Your task to perform on an android device: turn off javascript in the chrome app Image 0: 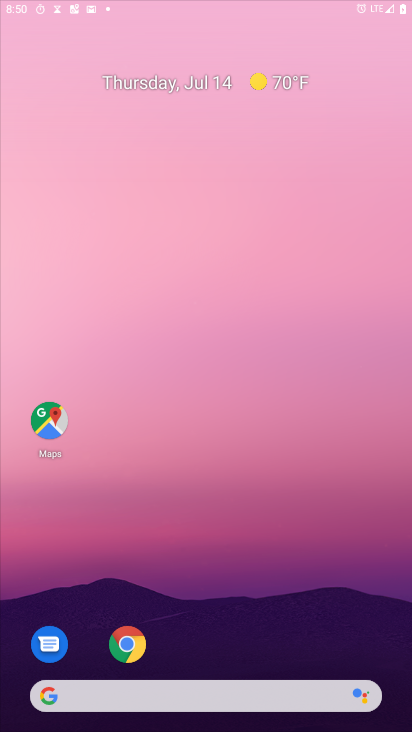
Step 0: press home button
Your task to perform on an android device: turn off javascript in the chrome app Image 1: 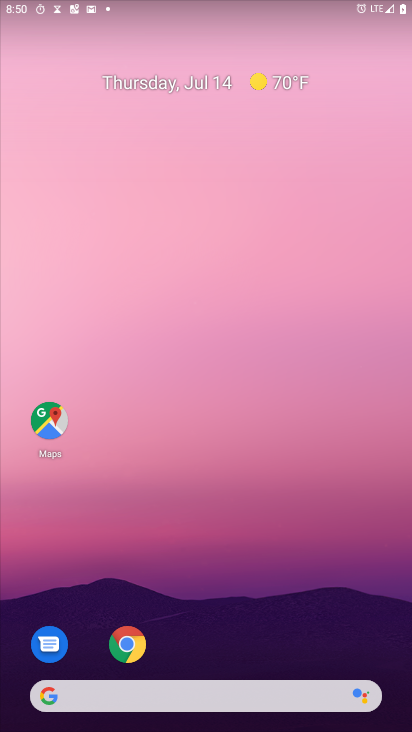
Step 1: click (129, 643)
Your task to perform on an android device: turn off javascript in the chrome app Image 2: 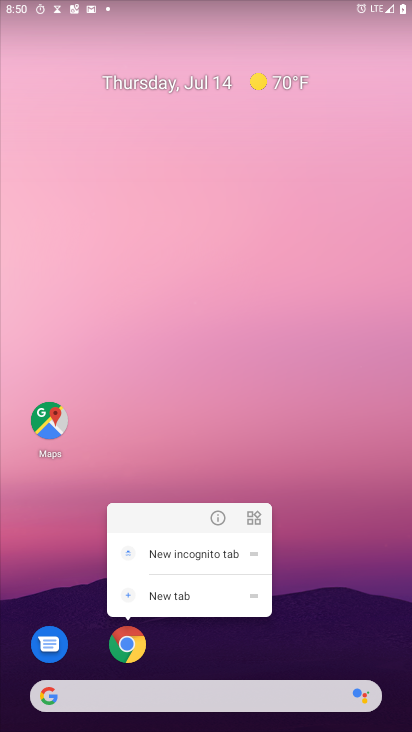
Step 2: click (121, 653)
Your task to perform on an android device: turn off javascript in the chrome app Image 3: 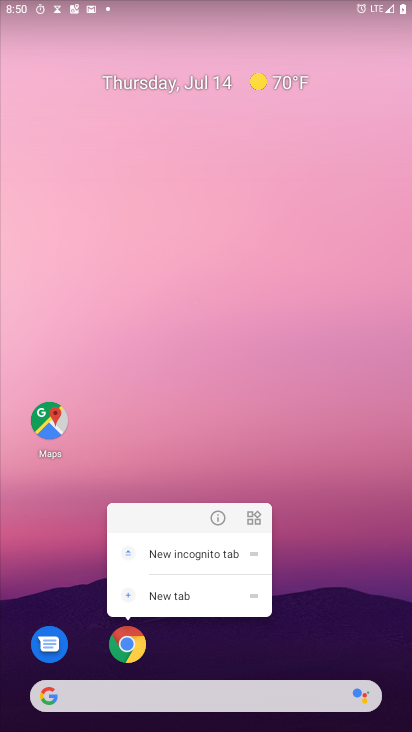
Step 3: click (127, 647)
Your task to perform on an android device: turn off javascript in the chrome app Image 4: 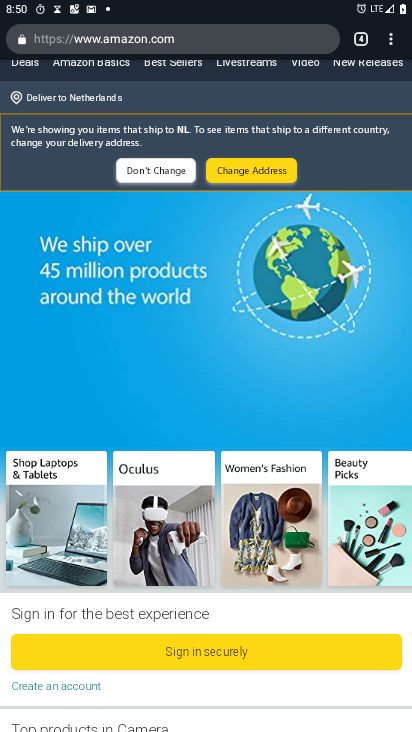
Step 4: drag from (391, 43) to (284, 510)
Your task to perform on an android device: turn off javascript in the chrome app Image 5: 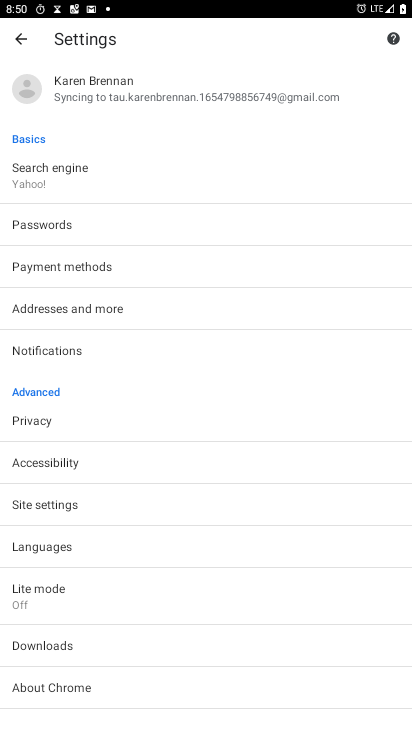
Step 5: click (57, 501)
Your task to perform on an android device: turn off javascript in the chrome app Image 6: 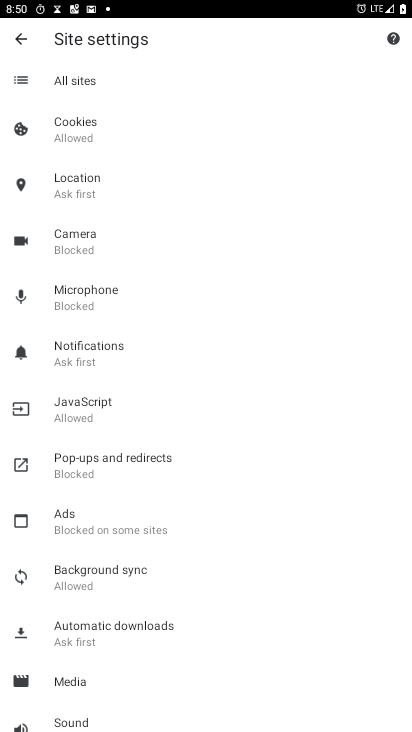
Step 6: click (91, 407)
Your task to perform on an android device: turn off javascript in the chrome app Image 7: 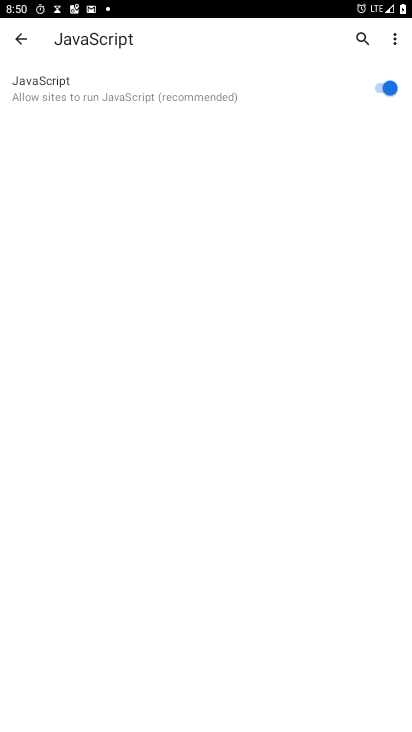
Step 7: click (377, 86)
Your task to perform on an android device: turn off javascript in the chrome app Image 8: 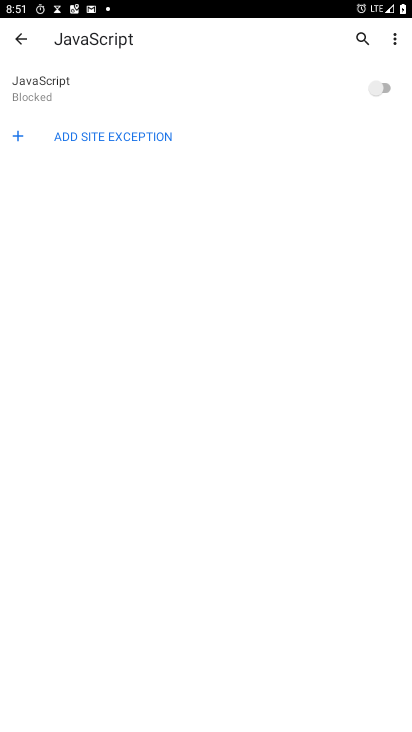
Step 8: task complete